Your task to perform on an android device: change text size in settings app Image 0: 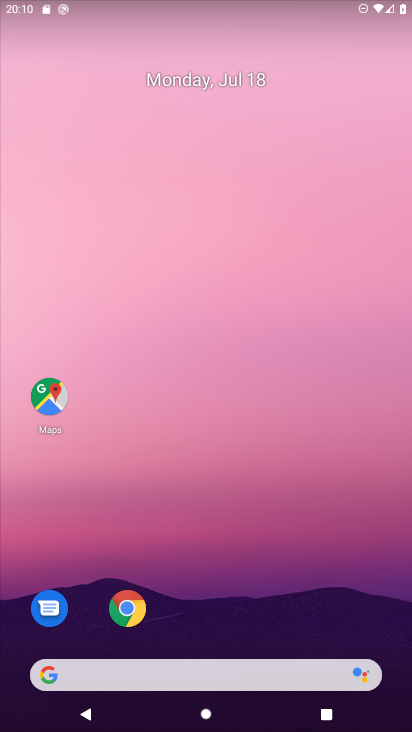
Step 0: drag from (220, 616) to (230, 109)
Your task to perform on an android device: change text size in settings app Image 1: 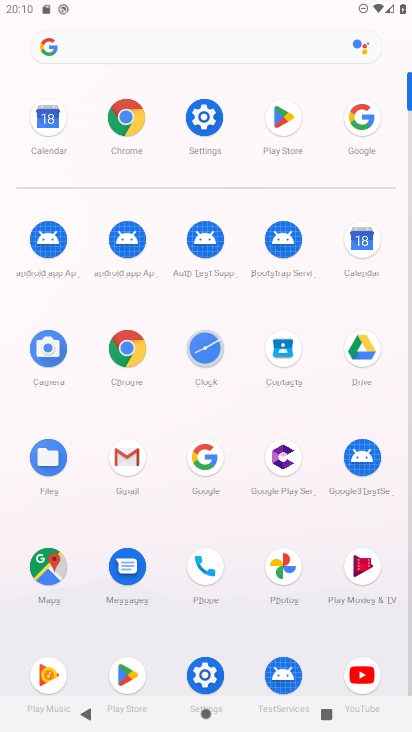
Step 1: click (202, 116)
Your task to perform on an android device: change text size in settings app Image 2: 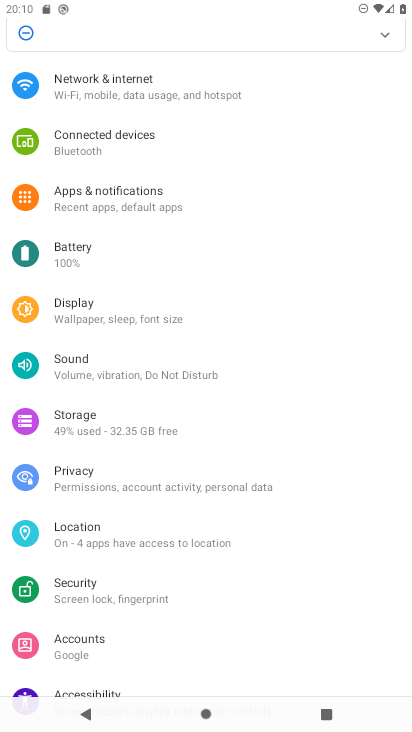
Step 2: click (97, 305)
Your task to perform on an android device: change text size in settings app Image 3: 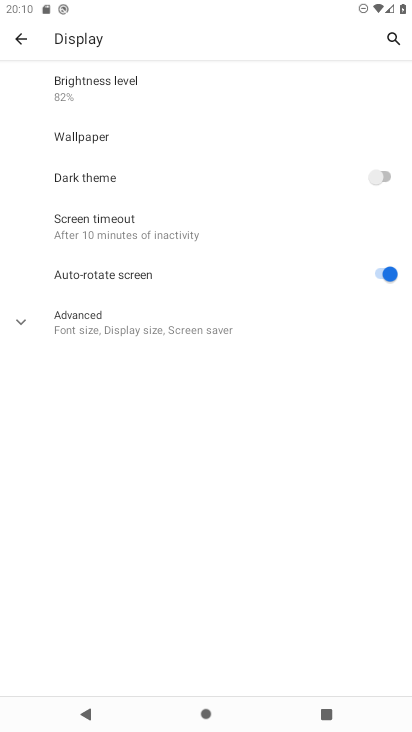
Step 3: click (46, 315)
Your task to perform on an android device: change text size in settings app Image 4: 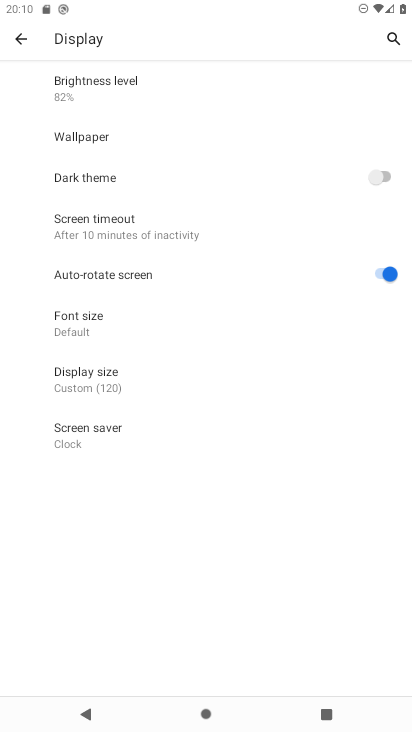
Step 4: click (113, 320)
Your task to perform on an android device: change text size in settings app Image 5: 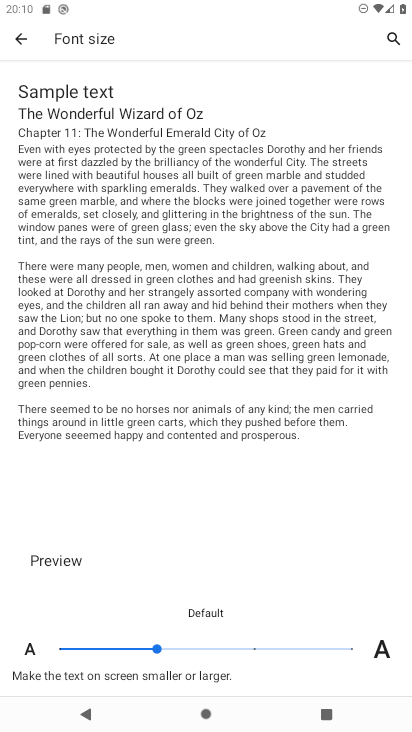
Step 5: click (243, 644)
Your task to perform on an android device: change text size in settings app Image 6: 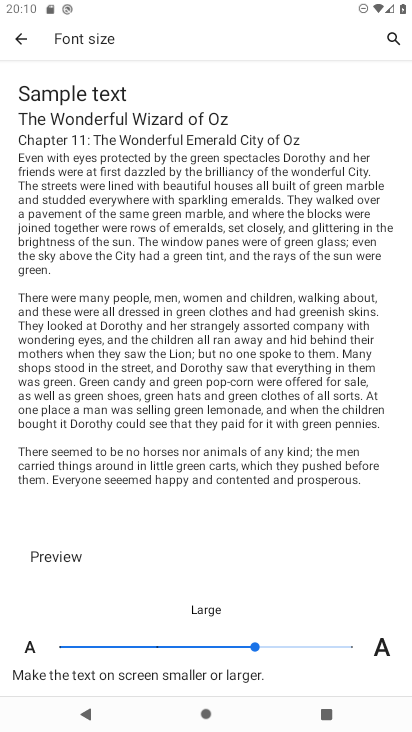
Step 6: task complete